Your task to perform on an android device: change timer sound Image 0: 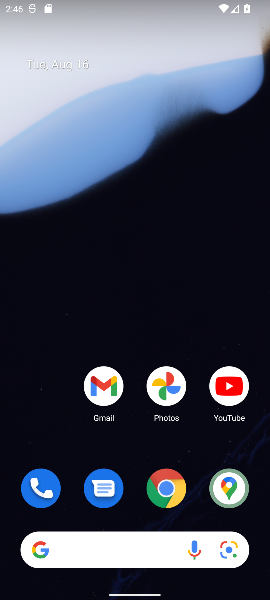
Step 0: drag from (137, 308) to (193, 33)
Your task to perform on an android device: change timer sound Image 1: 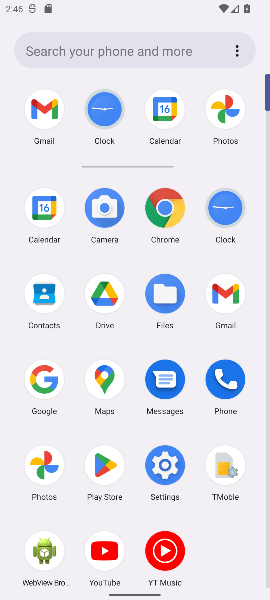
Step 1: click (155, 472)
Your task to perform on an android device: change timer sound Image 2: 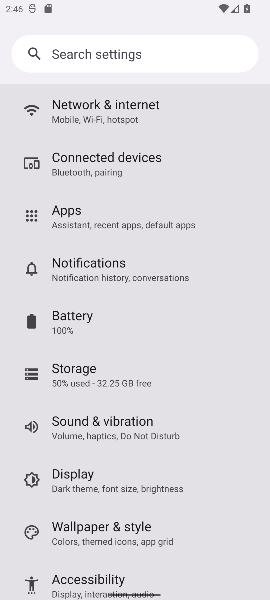
Step 2: task complete